Your task to perform on an android device: Toggle the flashlight Image 0: 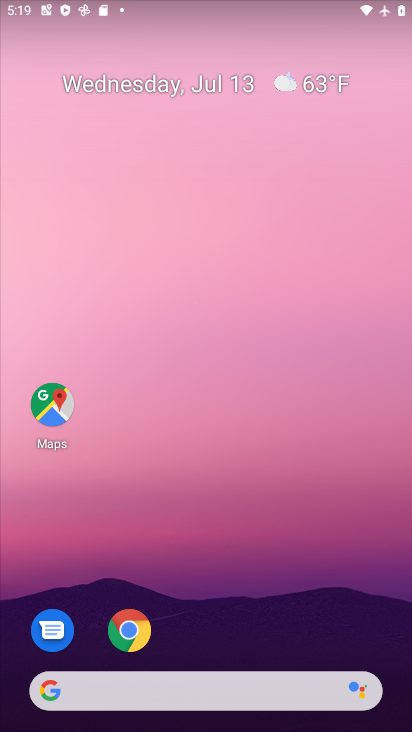
Step 0: press home button
Your task to perform on an android device: Toggle the flashlight Image 1: 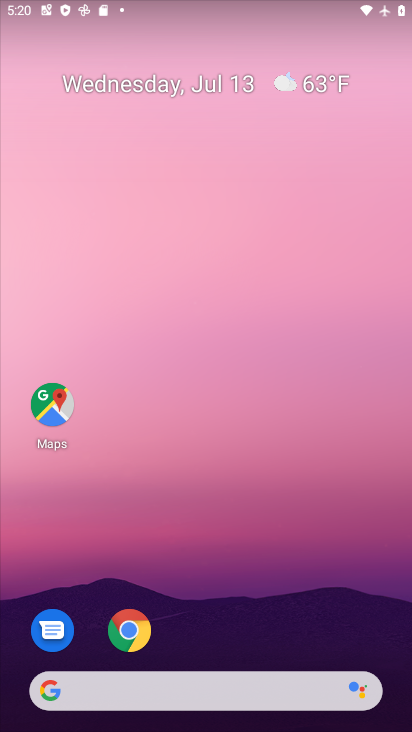
Step 1: task complete